Your task to perform on an android device: Open Reddit.com Image 0: 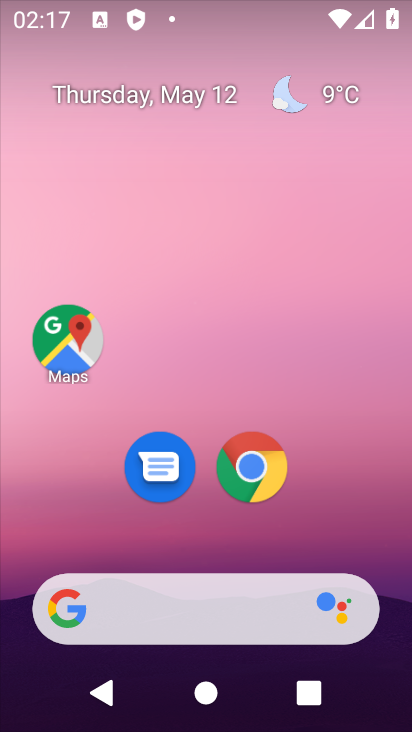
Step 0: drag from (322, 540) to (323, 260)
Your task to perform on an android device: Open Reddit.com Image 1: 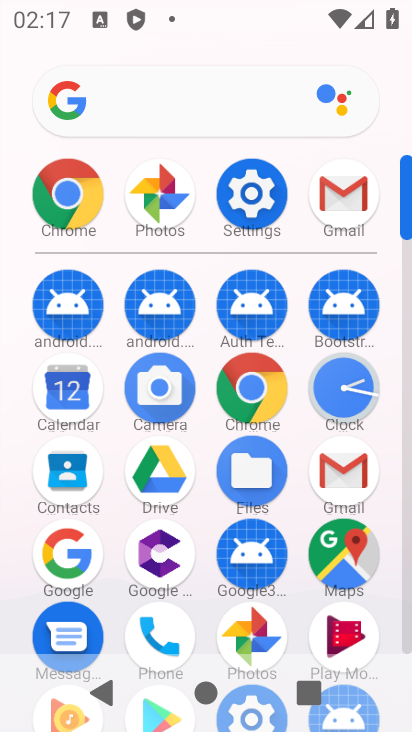
Step 1: click (247, 393)
Your task to perform on an android device: Open Reddit.com Image 2: 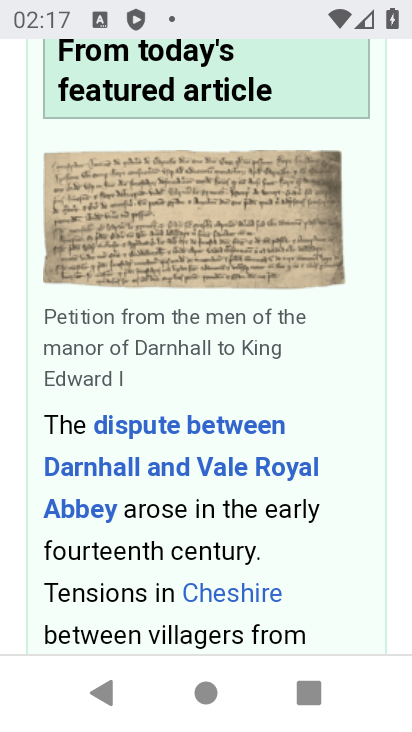
Step 2: drag from (304, 132) to (293, 522)
Your task to perform on an android device: Open Reddit.com Image 3: 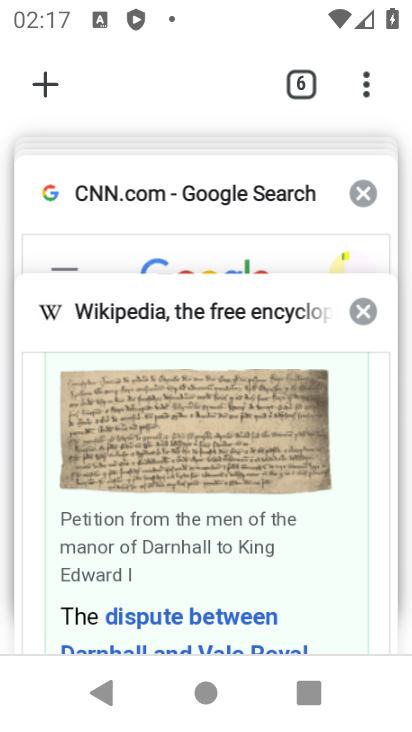
Step 3: click (54, 85)
Your task to perform on an android device: Open Reddit.com Image 4: 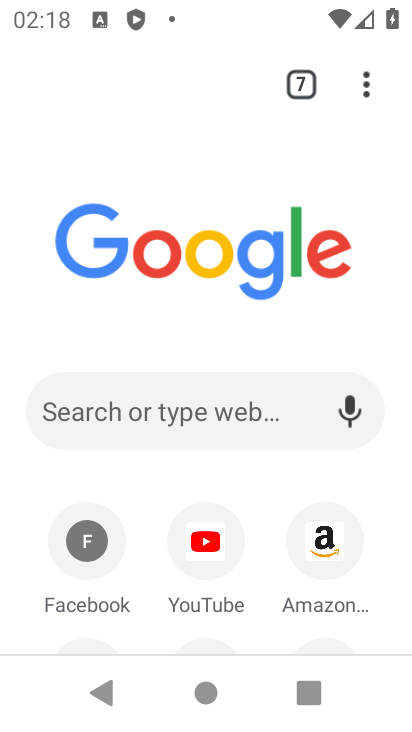
Step 4: click (190, 385)
Your task to perform on an android device: Open Reddit.com Image 5: 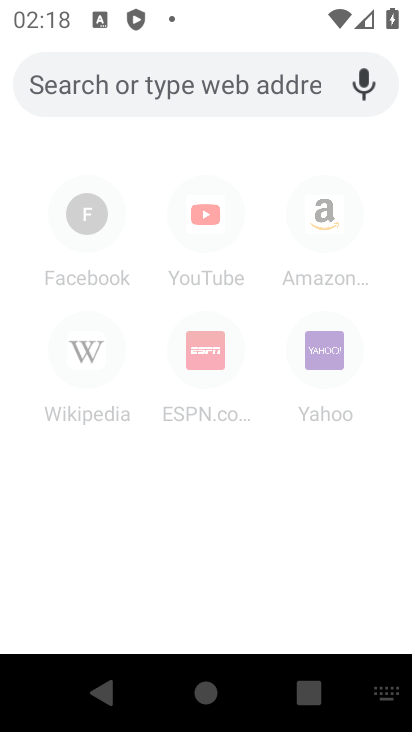
Step 5: type "Reddit.com"
Your task to perform on an android device: Open Reddit.com Image 6: 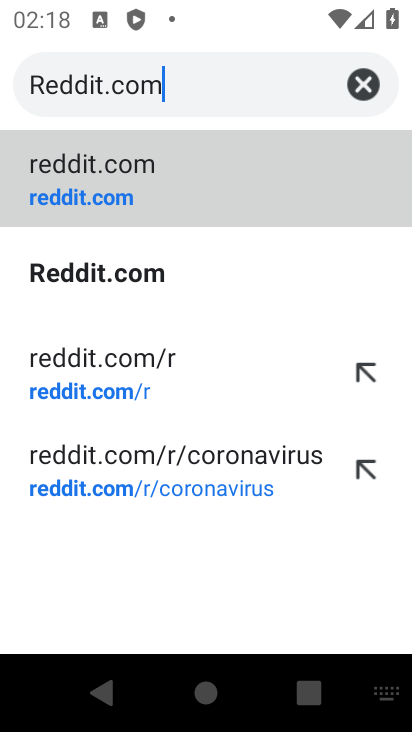
Step 6: click (125, 185)
Your task to perform on an android device: Open Reddit.com Image 7: 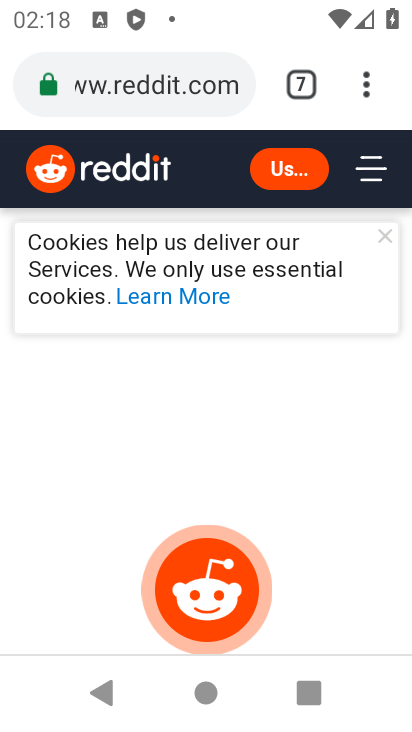
Step 7: task complete